Your task to perform on an android device: Turn on the flashlight Image 0: 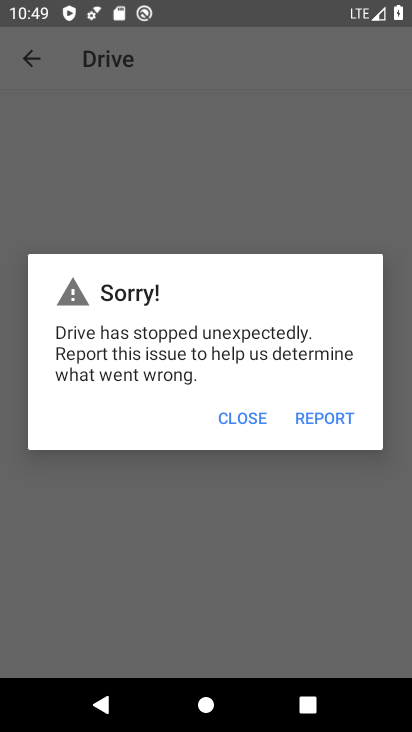
Step 0: press home button
Your task to perform on an android device: Turn on the flashlight Image 1: 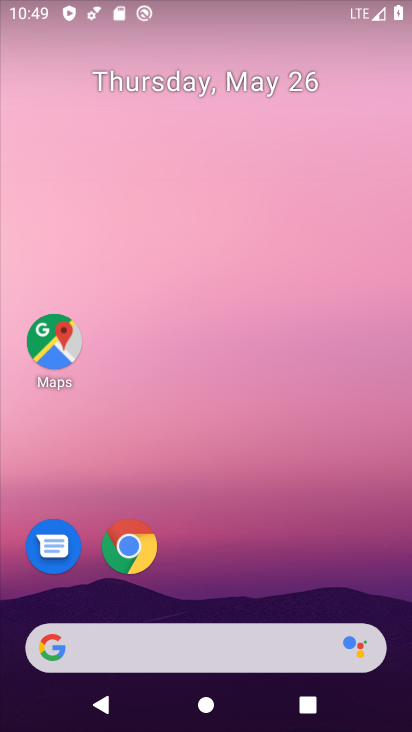
Step 1: drag from (217, 550) to (250, 159)
Your task to perform on an android device: Turn on the flashlight Image 2: 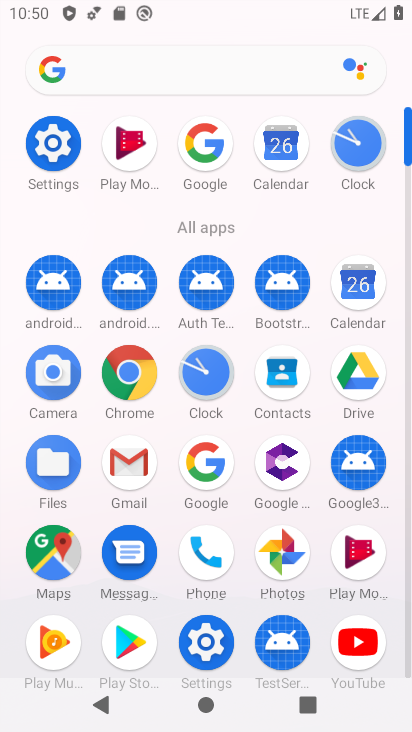
Step 2: click (50, 141)
Your task to perform on an android device: Turn on the flashlight Image 3: 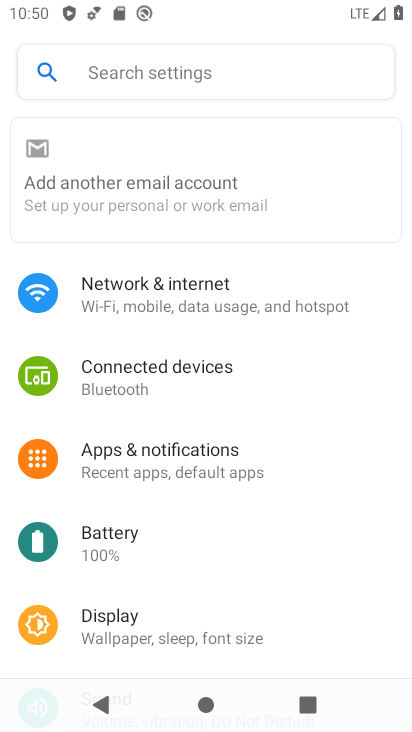
Step 3: click (189, 70)
Your task to perform on an android device: Turn on the flashlight Image 4: 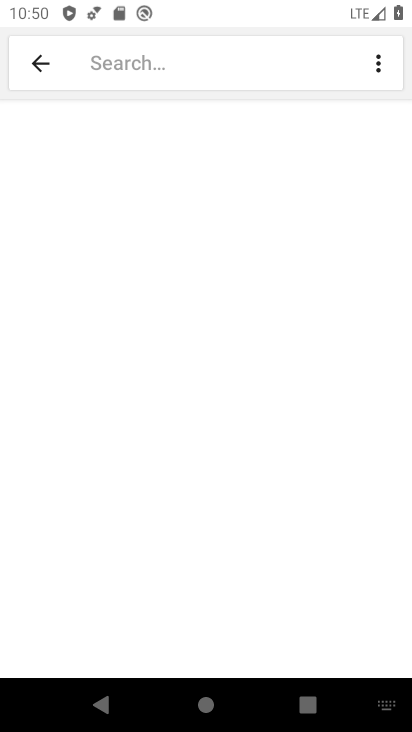
Step 4: type "flash"
Your task to perform on an android device: Turn on the flashlight Image 5: 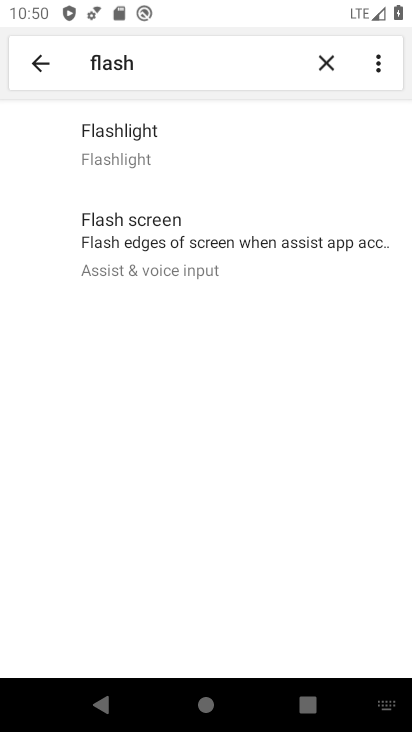
Step 5: task complete